Your task to perform on an android device: turn on notifications settings in the gmail app Image 0: 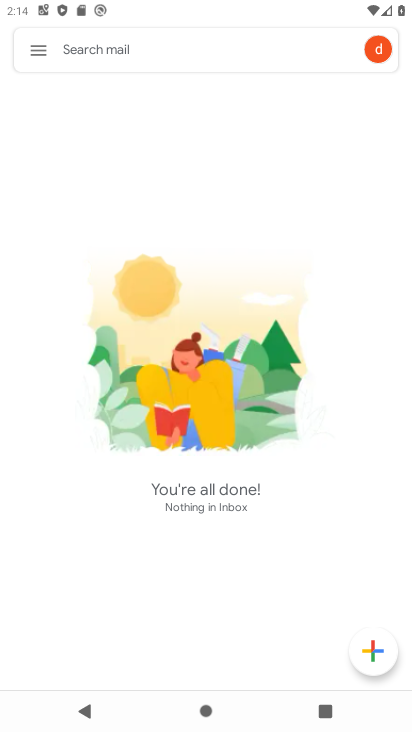
Step 0: press home button
Your task to perform on an android device: turn on notifications settings in the gmail app Image 1: 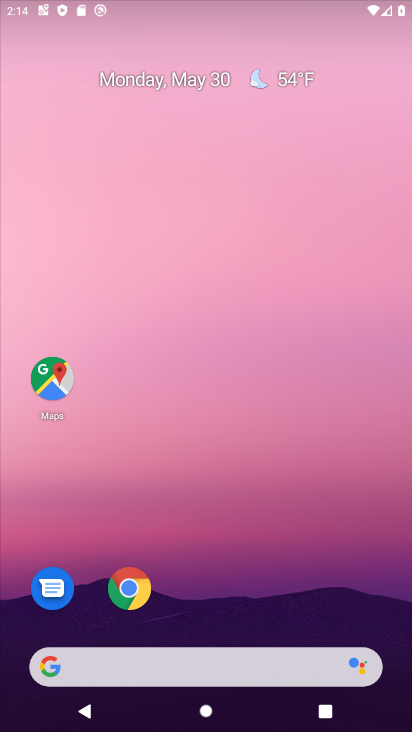
Step 1: drag from (211, 581) to (281, 101)
Your task to perform on an android device: turn on notifications settings in the gmail app Image 2: 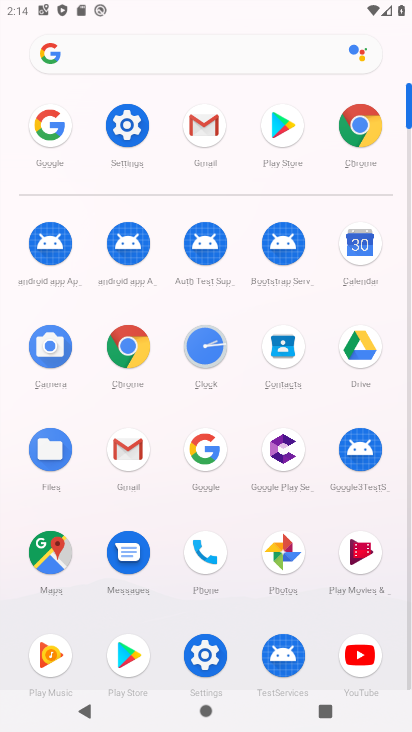
Step 2: click (129, 449)
Your task to perform on an android device: turn on notifications settings in the gmail app Image 3: 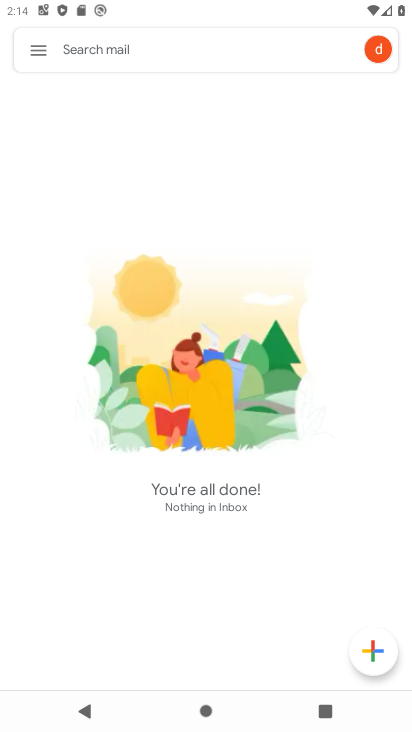
Step 3: click (40, 58)
Your task to perform on an android device: turn on notifications settings in the gmail app Image 4: 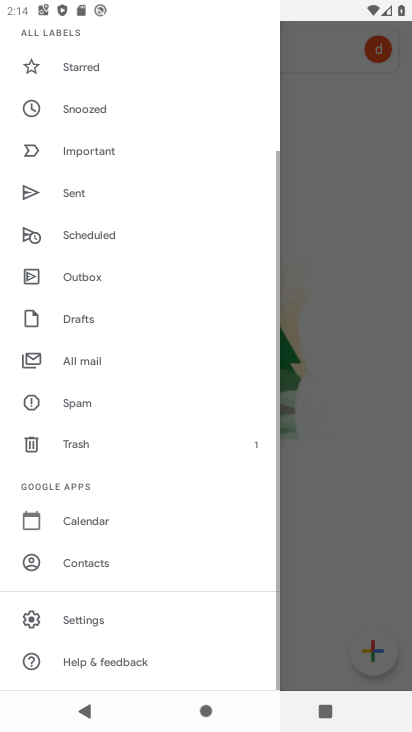
Step 4: click (112, 618)
Your task to perform on an android device: turn on notifications settings in the gmail app Image 5: 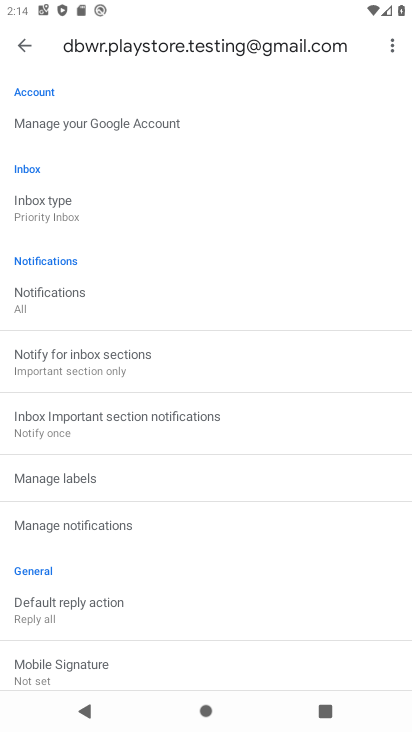
Step 5: click (38, 306)
Your task to perform on an android device: turn on notifications settings in the gmail app Image 6: 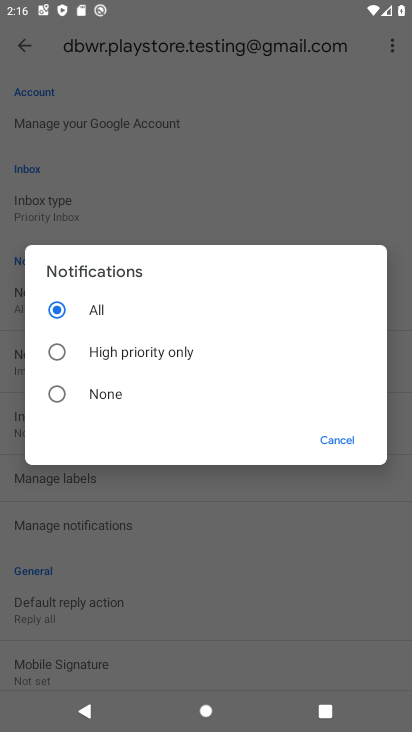
Step 6: task complete